Your task to perform on an android device: install app "Pinterest" Image 0: 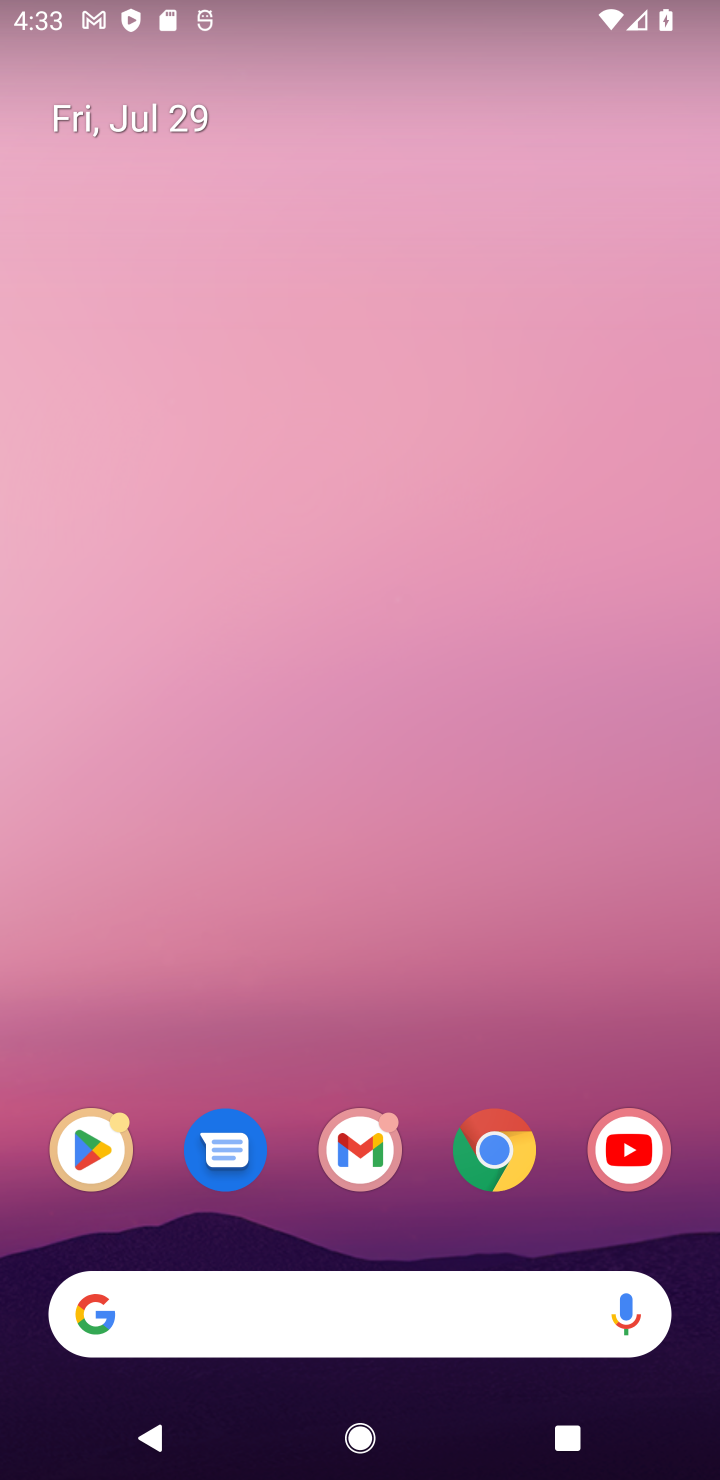
Step 0: drag from (412, 1469) to (401, 161)
Your task to perform on an android device: install app "Pinterest" Image 1: 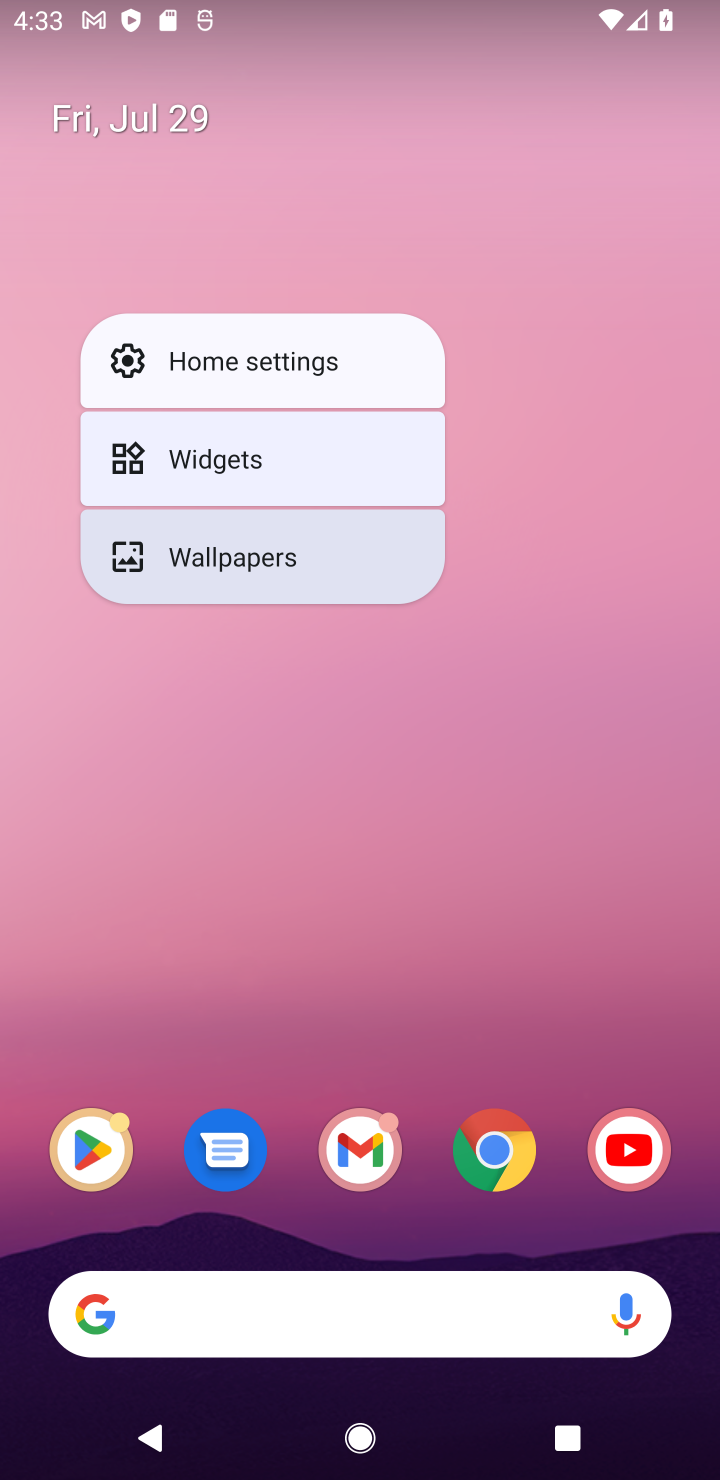
Step 1: click (397, 716)
Your task to perform on an android device: install app "Pinterest" Image 2: 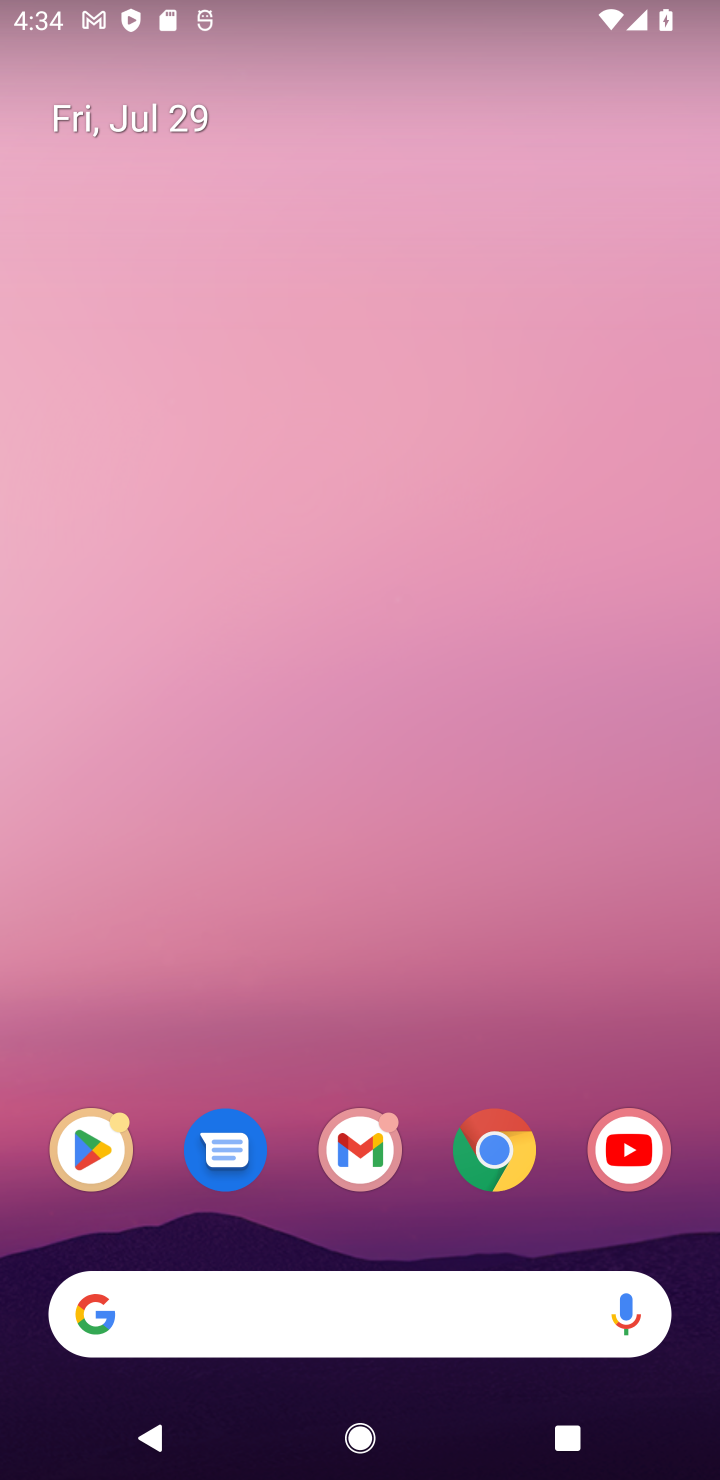
Step 2: drag from (409, 1071) to (379, 118)
Your task to perform on an android device: install app "Pinterest" Image 3: 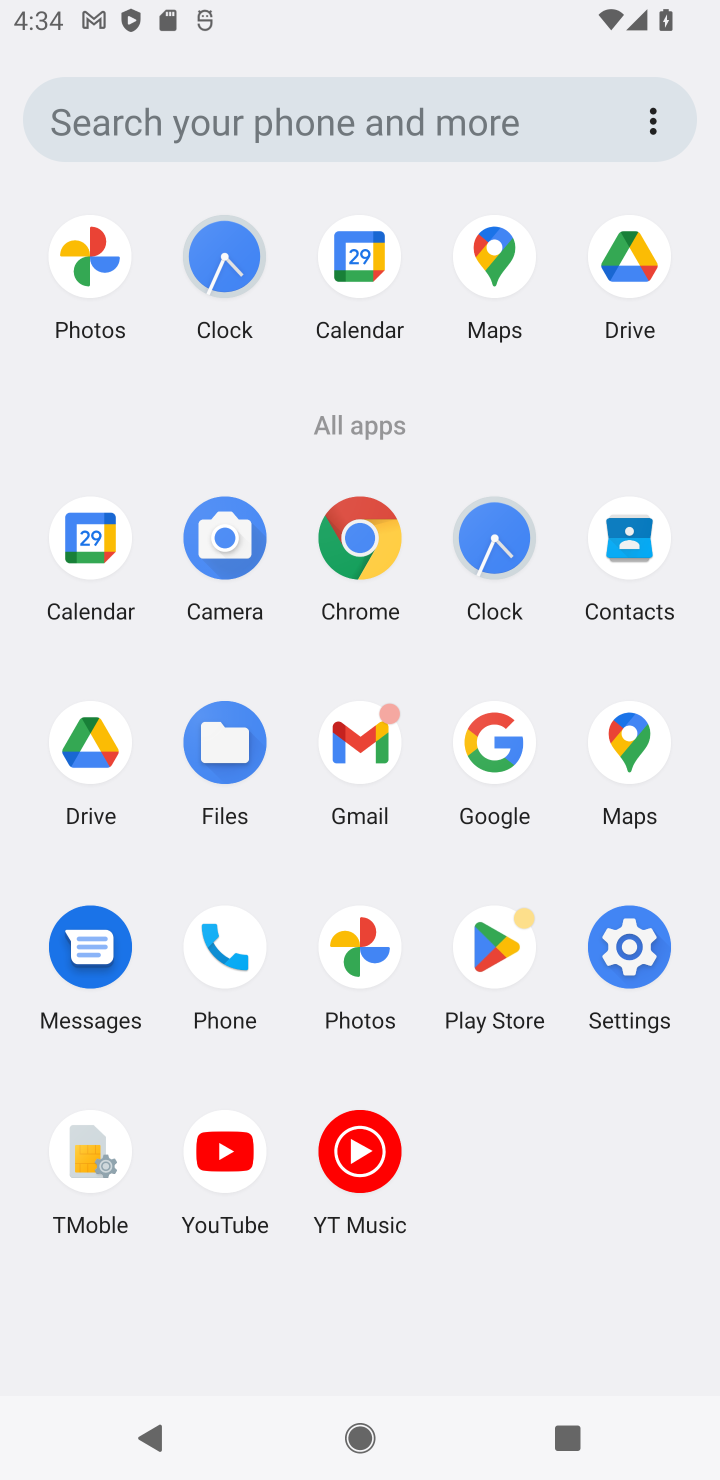
Step 3: click (498, 947)
Your task to perform on an android device: install app "Pinterest" Image 4: 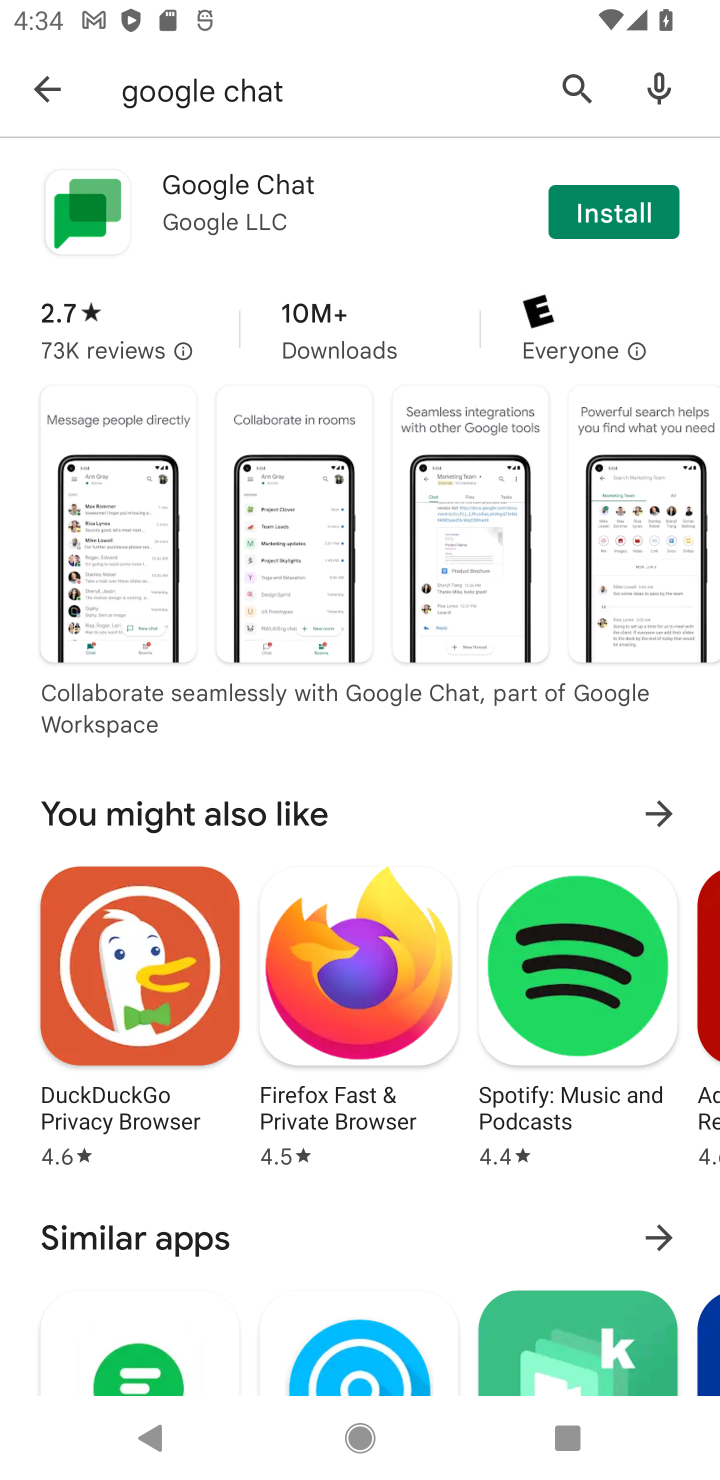
Step 4: click (574, 78)
Your task to perform on an android device: install app "Pinterest" Image 5: 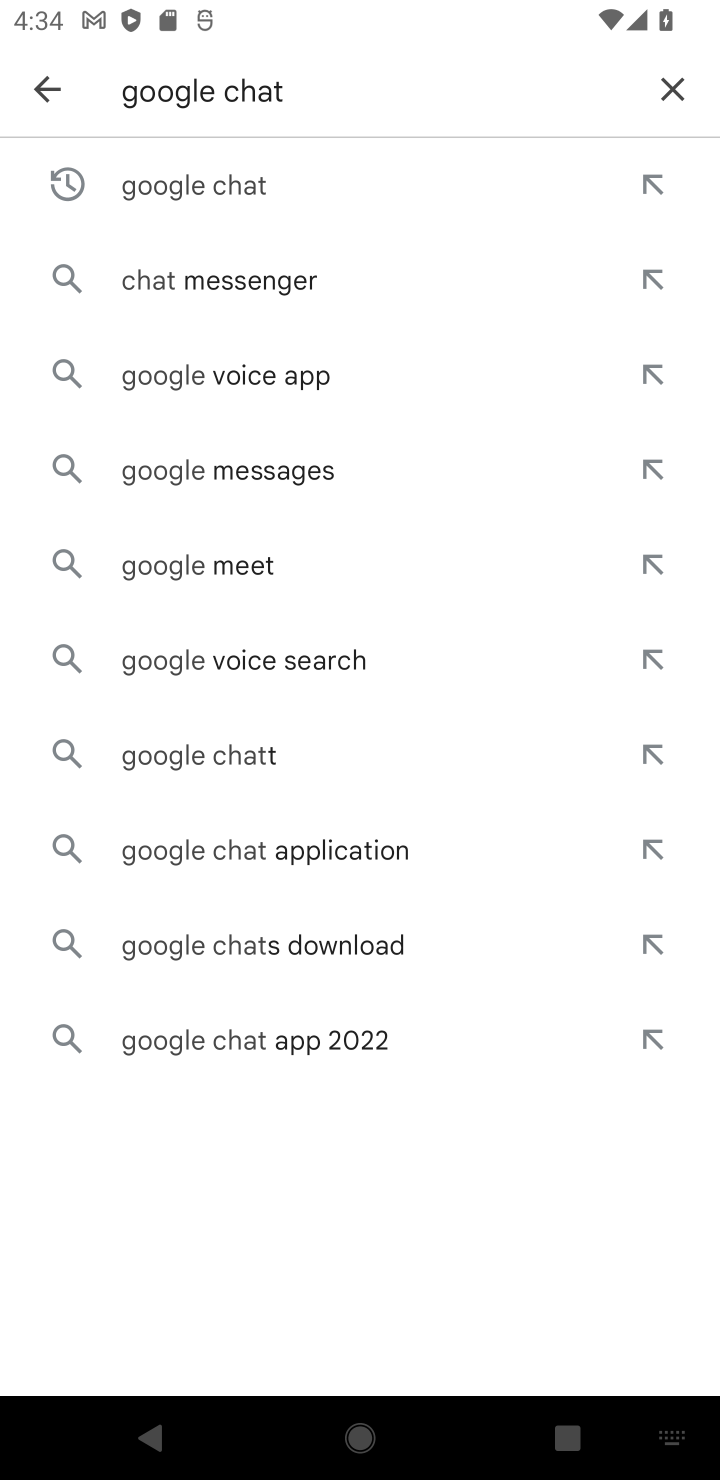
Step 5: click (683, 86)
Your task to perform on an android device: install app "Pinterest" Image 6: 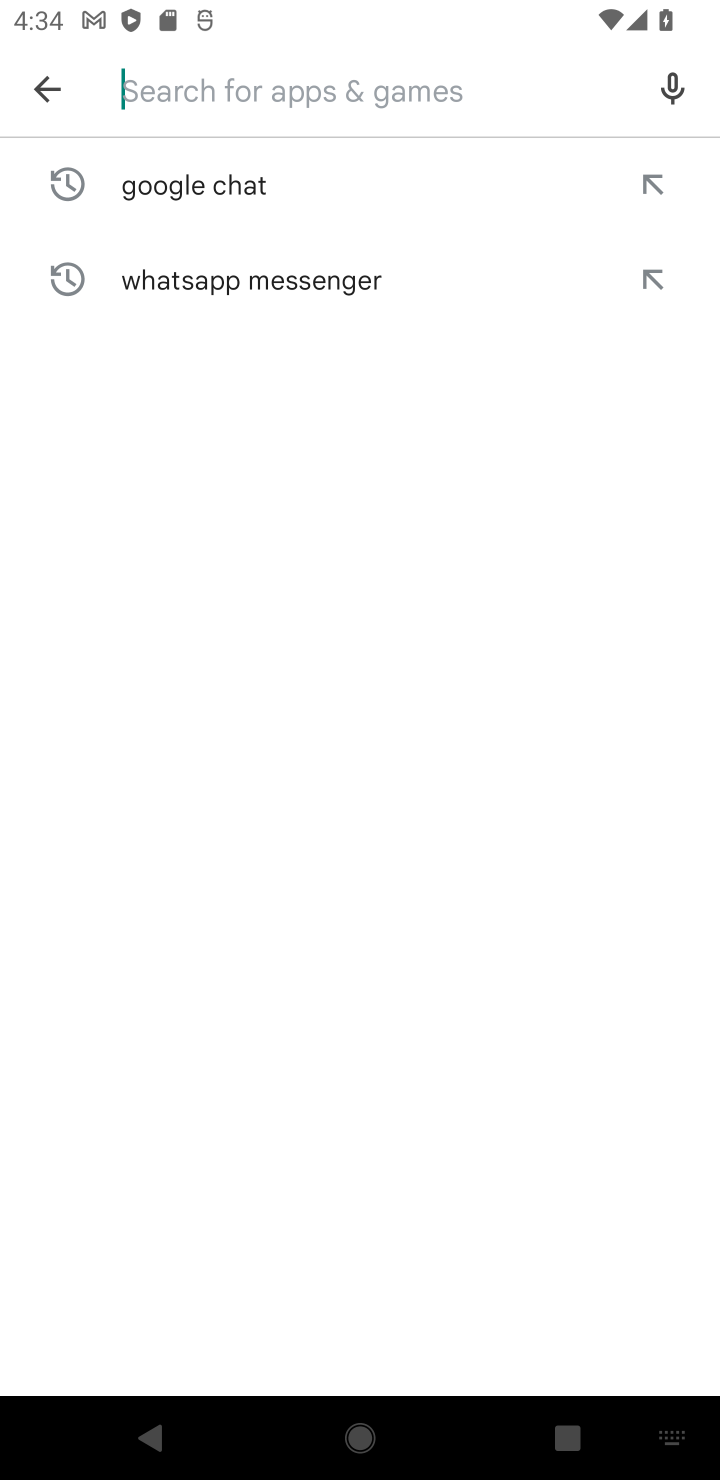
Step 6: type "Pinterest"
Your task to perform on an android device: install app "Pinterest" Image 7: 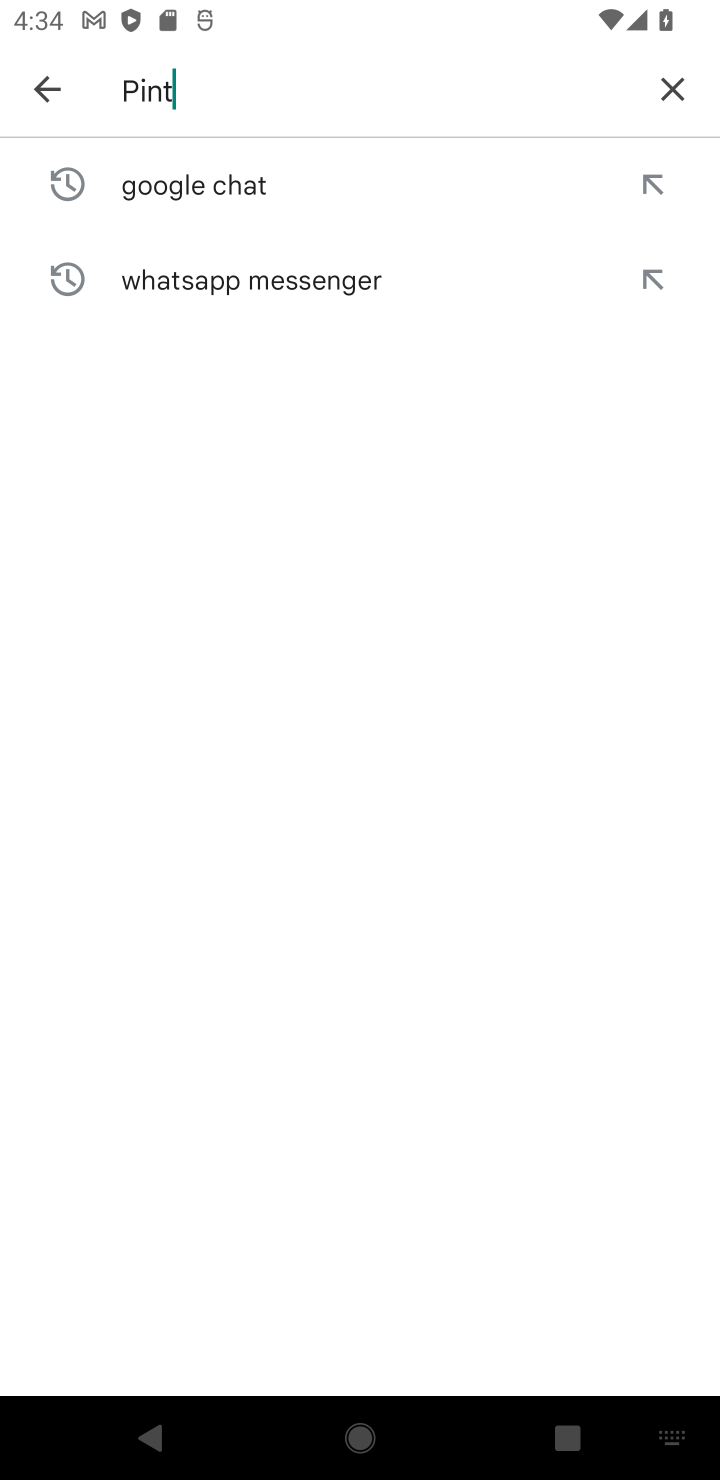
Step 7: type ""
Your task to perform on an android device: install app "Pinterest" Image 8: 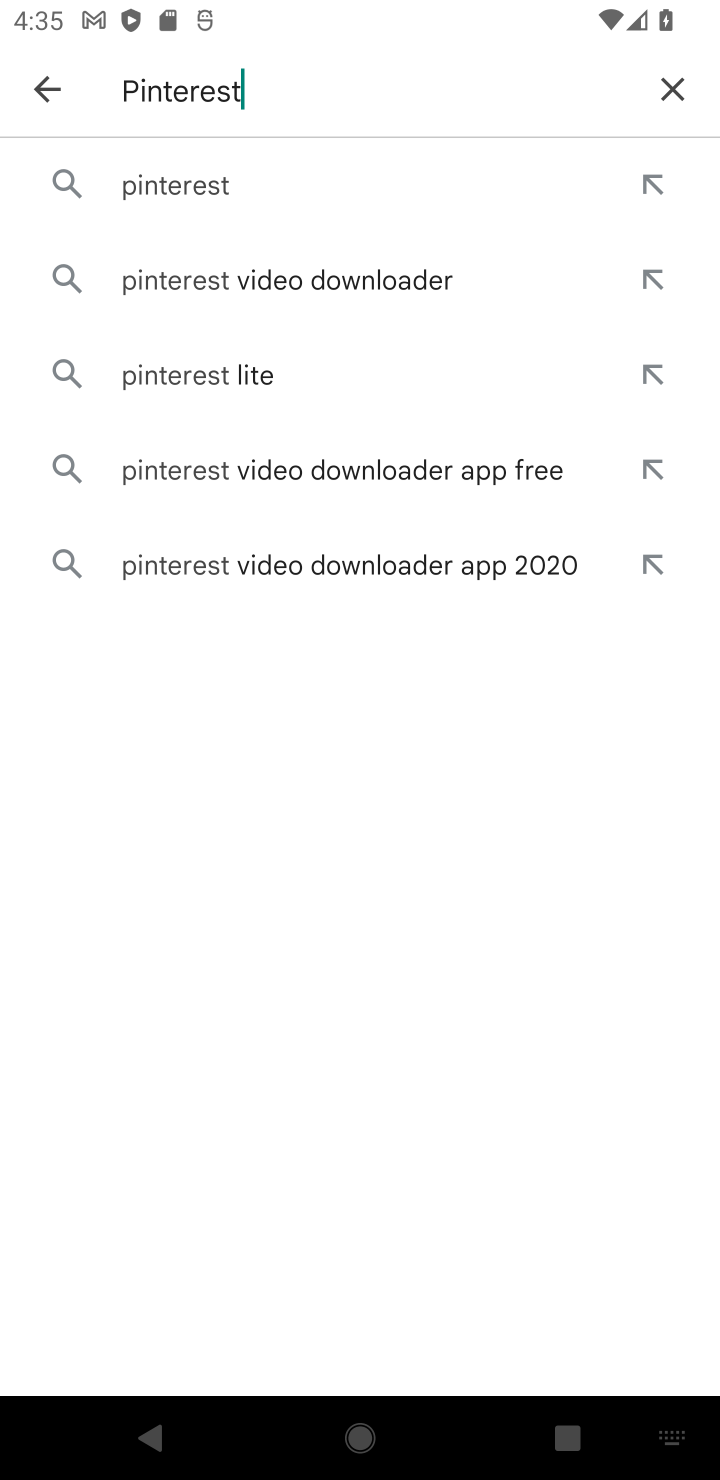
Step 8: click (170, 180)
Your task to perform on an android device: install app "Pinterest" Image 9: 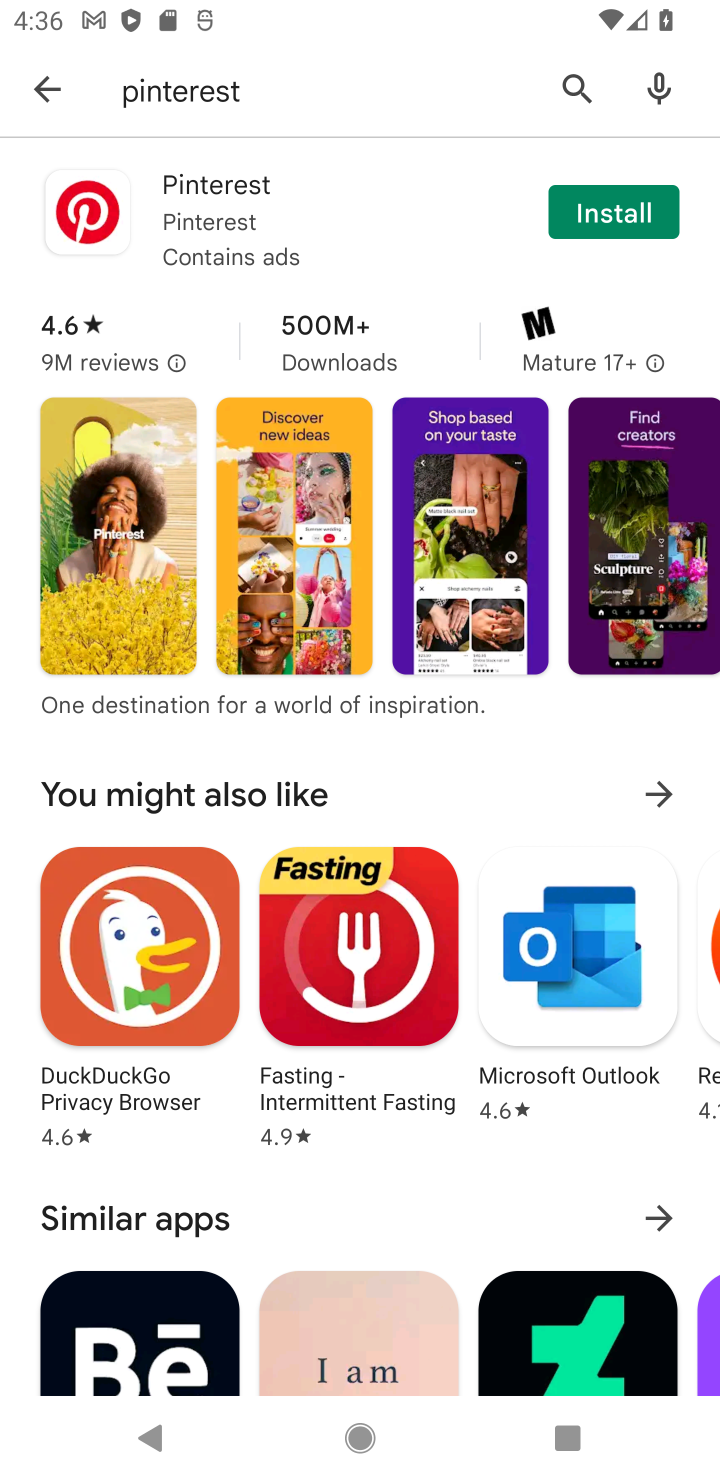
Step 9: click (646, 217)
Your task to perform on an android device: install app "Pinterest" Image 10: 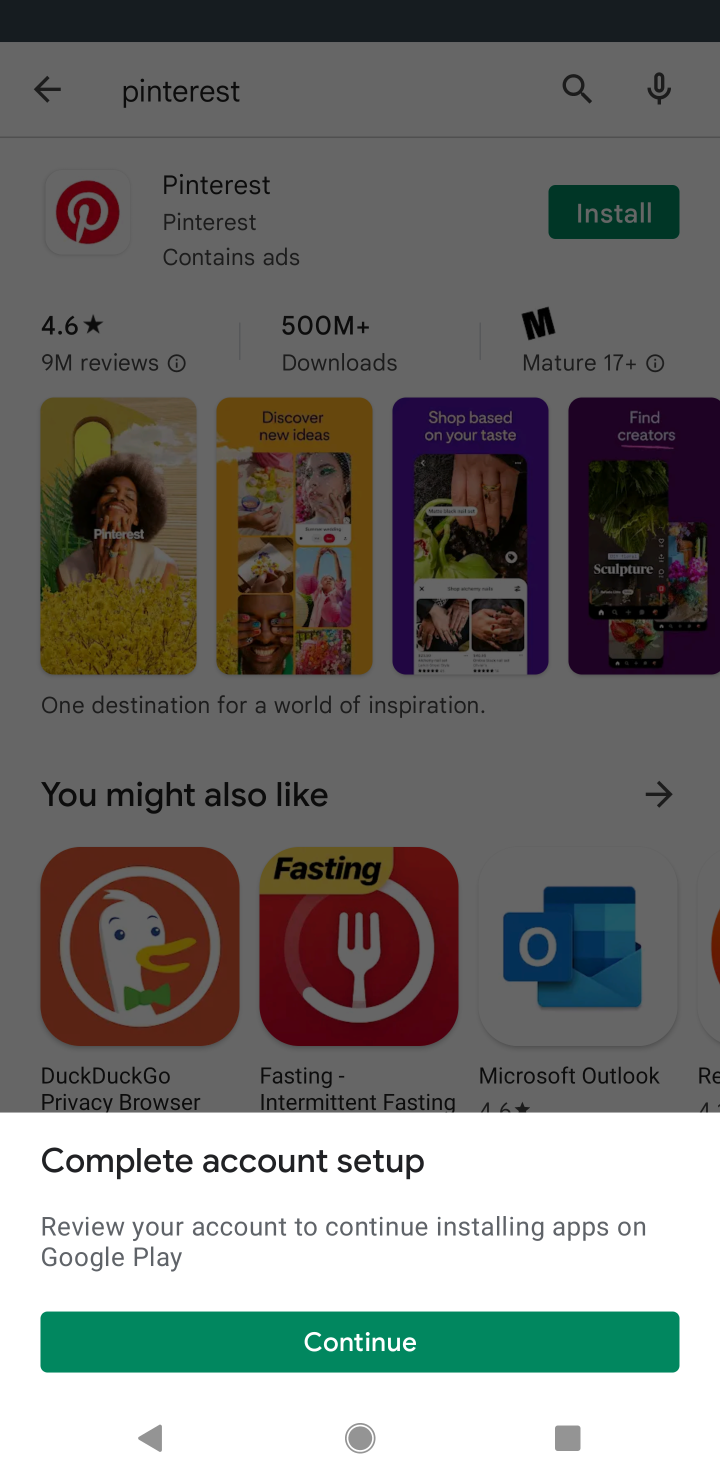
Step 10: click (334, 1356)
Your task to perform on an android device: install app "Pinterest" Image 11: 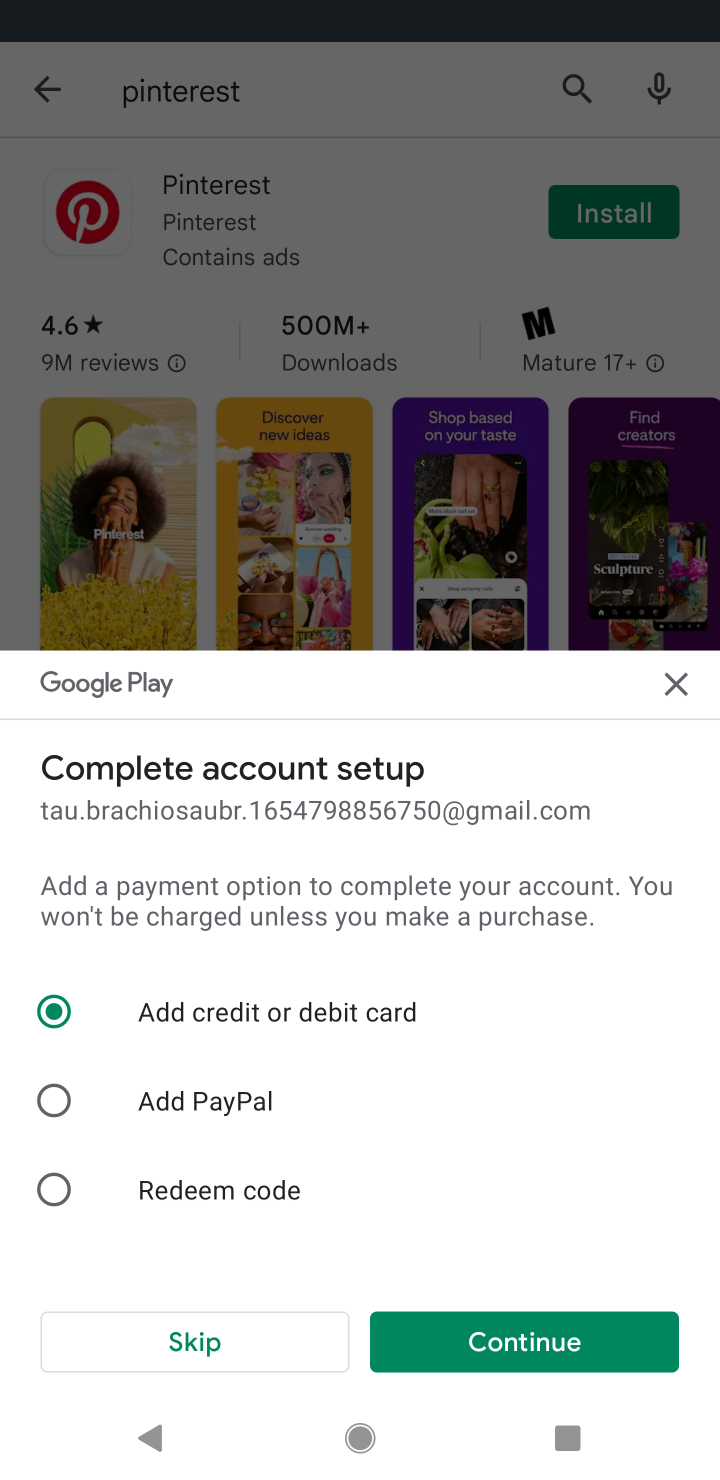
Step 11: click (202, 1347)
Your task to perform on an android device: install app "Pinterest" Image 12: 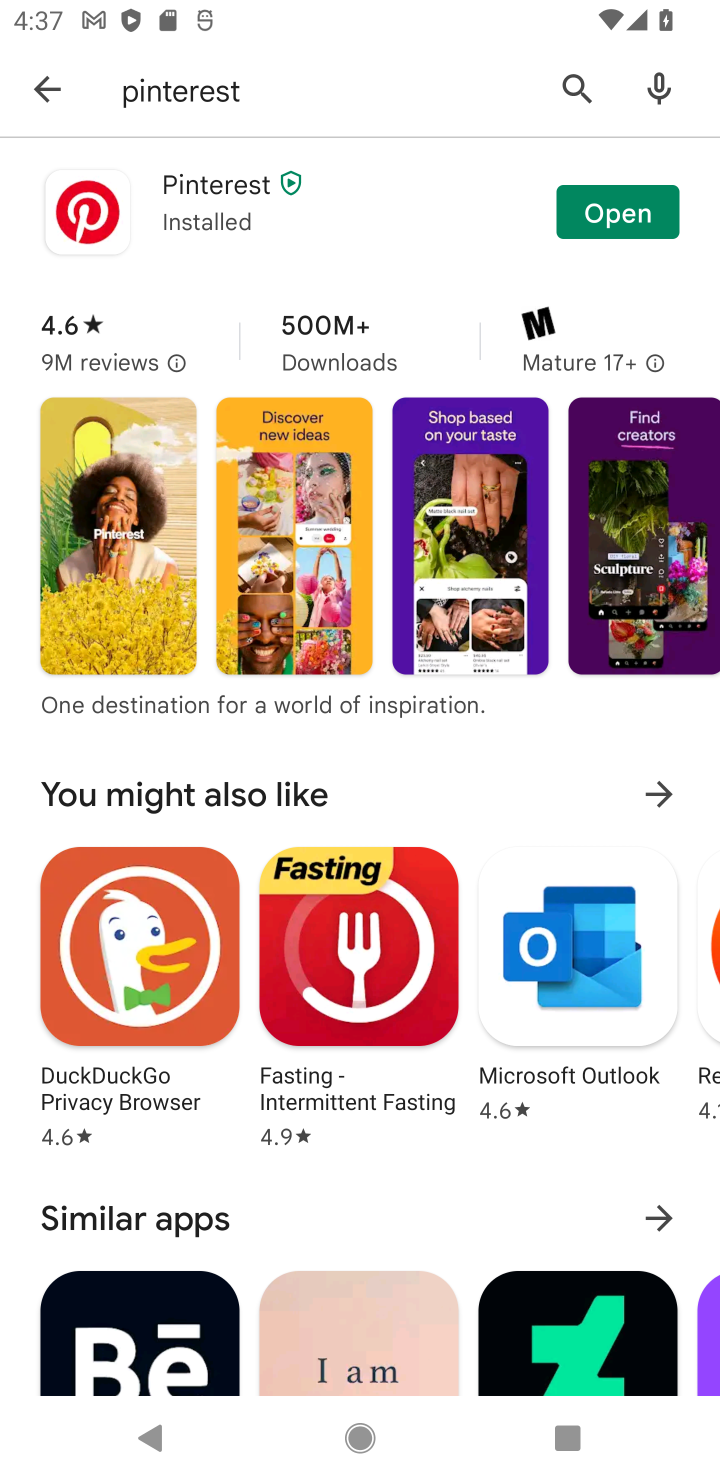
Step 12: task complete